Your task to perform on an android device: open app "Mercado Libre" (install if not already installed) Image 0: 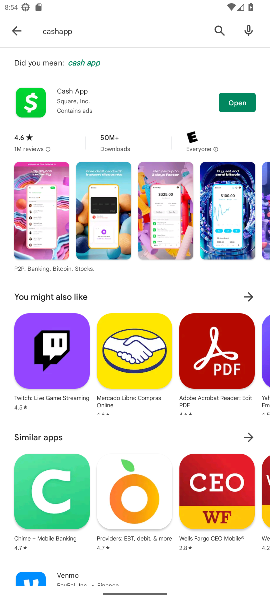
Step 0: click (213, 23)
Your task to perform on an android device: open app "Mercado Libre" (install if not already installed) Image 1: 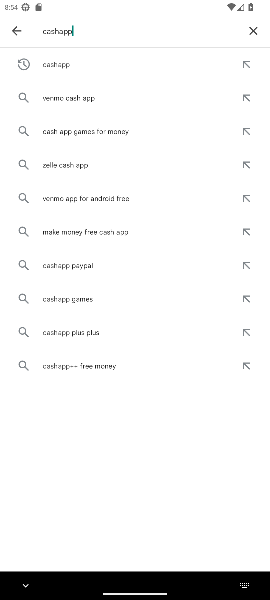
Step 1: click (255, 28)
Your task to perform on an android device: open app "Mercado Libre" (install if not already installed) Image 2: 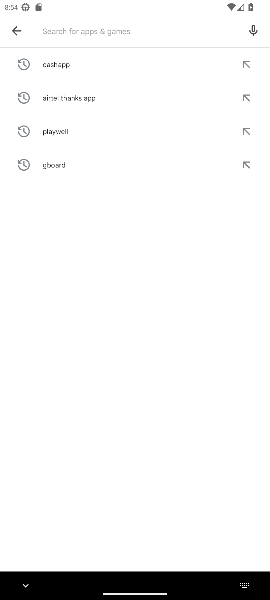
Step 2: type "mercado libre"
Your task to perform on an android device: open app "Mercado Libre" (install if not already installed) Image 3: 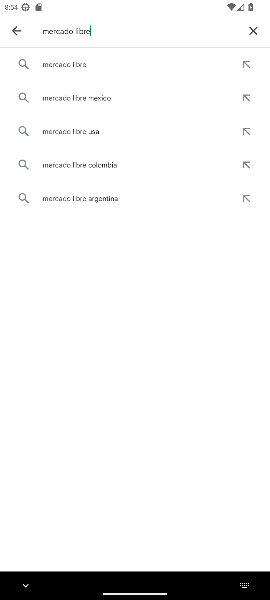
Step 3: click (40, 68)
Your task to perform on an android device: open app "Mercado Libre" (install if not already installed) Image 4: 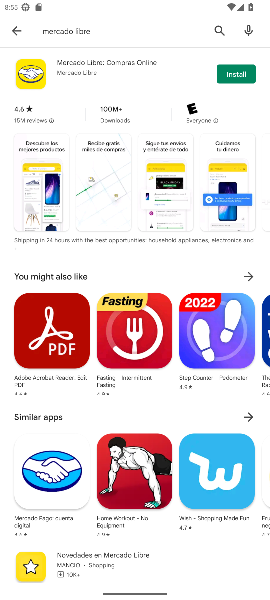
Step 4: click (236, 78)
Your task to perform on an android device: open app "Mercado Libre" (install if not already installed) Image 5: 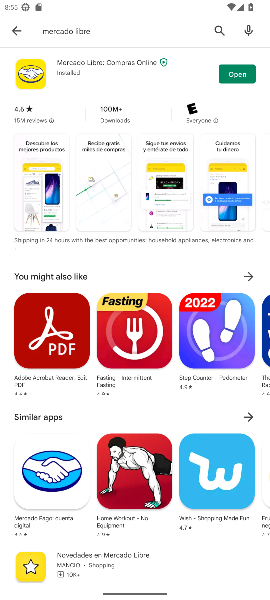
Step 5: click (232, 67)
Your task to perform on an android device: open app "Mercado Libre" (install if not already installed) Image 6: 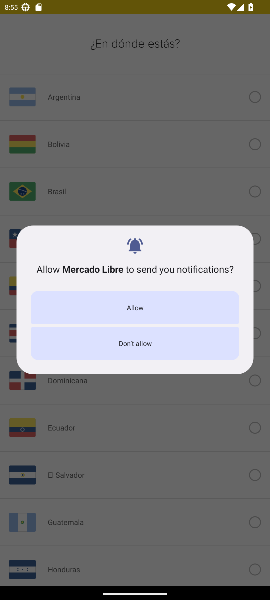
Step 6: task complete